Your task to perform on an android device: Open Google Chrome and click the shortcut for Amazon.com Image 0: 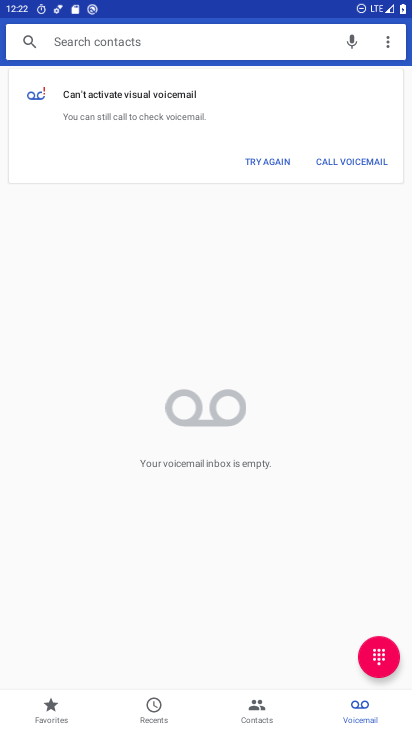
Step 0: press home button
Your task to perform on an android device: Open Google Chrome and click the shortcut for Amazon.com Image 1: 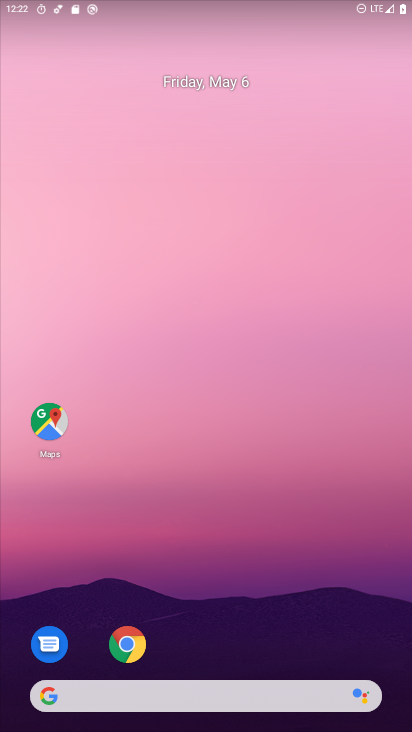
Step 1: drag from (345, 644) to (381, 94)
Your task to perform on an android device: Open Google Chrome and click the shortcut for Amazon.com Image 2: 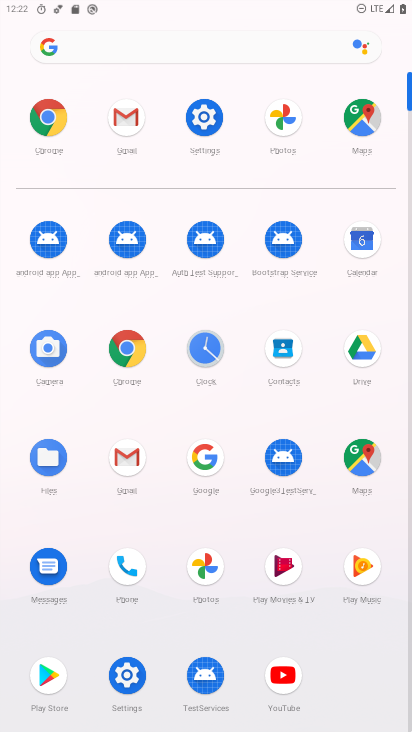
Step 2: click (124, 358)
Your task to perform on an android device: Open Google Chrome and click the shortcut for Amazon.com Image 3: 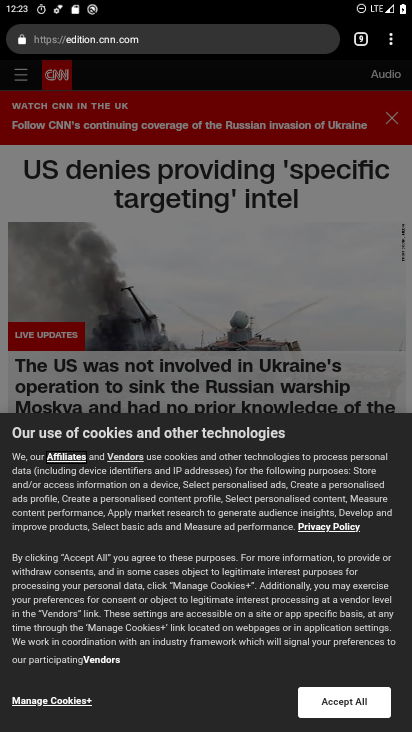
Step 3: click (363, 37)
Your task to perform on an android device: Open Google Chrome and click the shortcut for Amazon.com Image 4: 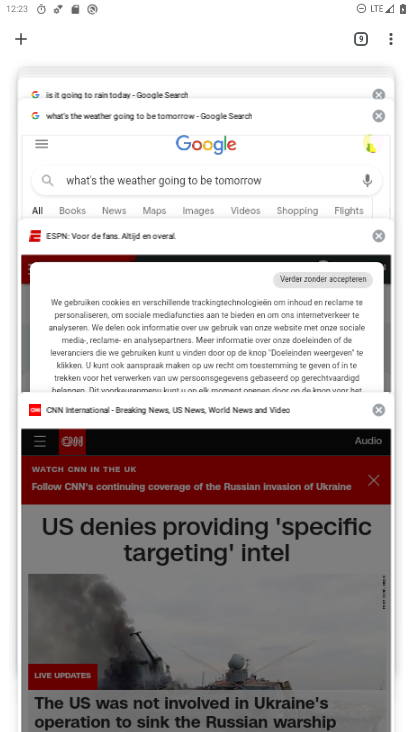
Step 4: click (19, 35)
Your task to perform on an android device: Open Google Chrome and click the shortcut for Amazon.com Image 5: 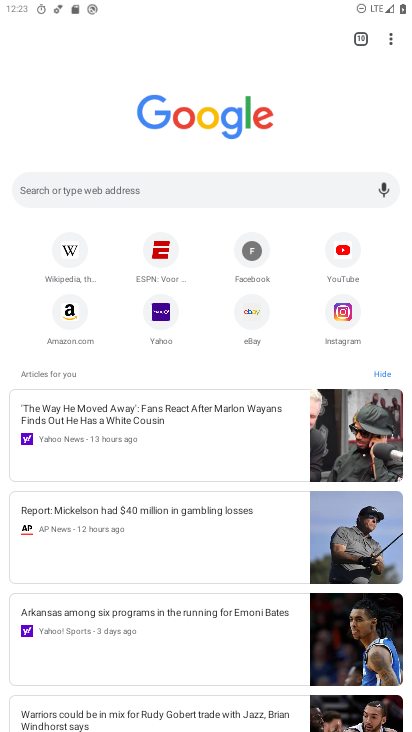
Step 5: click (70, 316)
Your task to perform on an android device: Open Google Chrome and click the shortcut for Amazon.com Image 6: 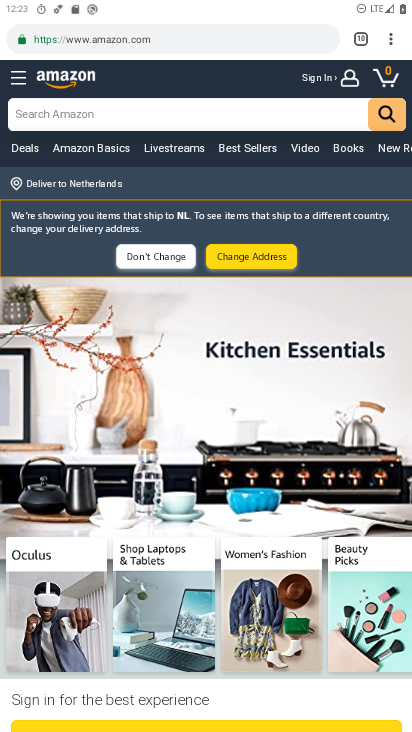
Step 6: task complete